Your task to perform on an android device: delete the emails in spam in the gmail app Image 0: 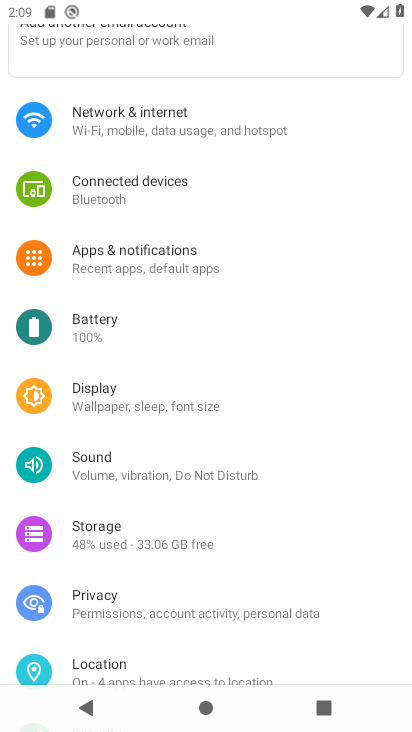
Step 0: press home button
Your task to perform on an android device: delete the emails in spam in the gmail app Image 1: 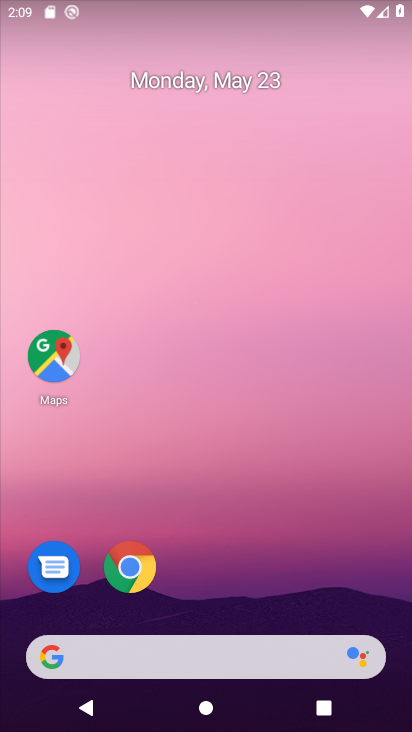
Step 1: drag from (217, 579) to (215, 201)
Your task to perform on an android device: delete the emails in spam in the gmail app Image 2: 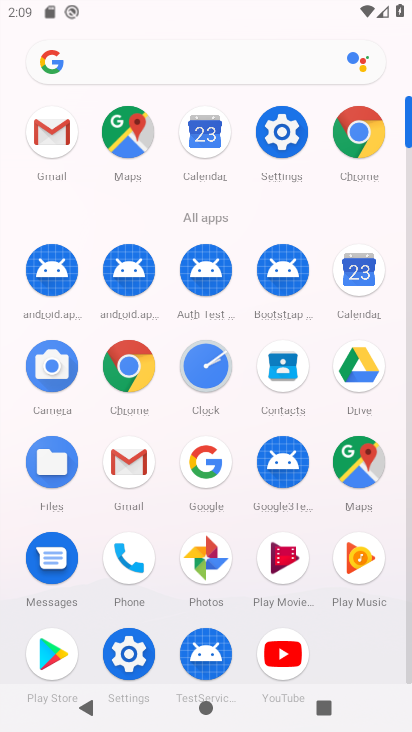
Step 2: click (60, 142)
Your task to perform on an android device: delete the emails in spam in the gmail app Image 3: 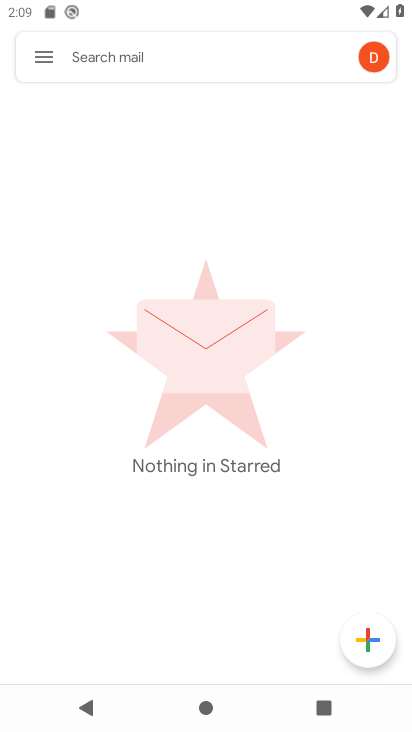
Step 3: click (48, 60)
Your task to perform on an android device: delete the emails in spam in the gmail app Image 4: 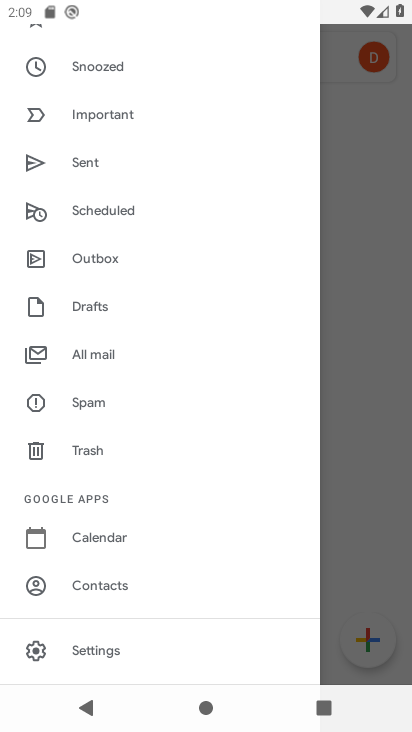
Step 4: click (84, 402)
Your task to perform on an android device: delete the emails in spam in the gmail app Image 5: 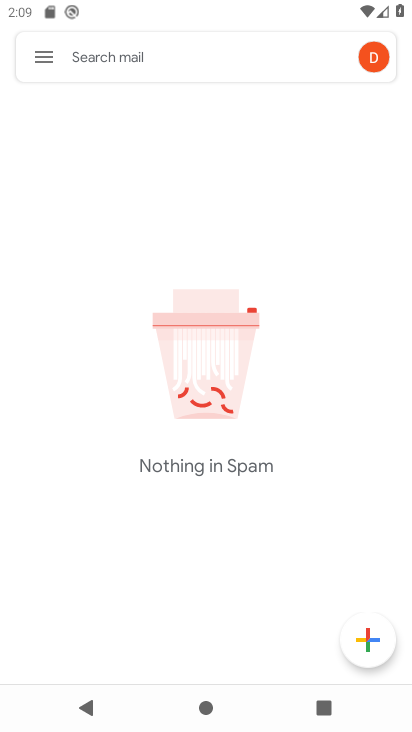
Step 5: task complete